Your task to perform on an android device: open chrome privacy settings Image 0: 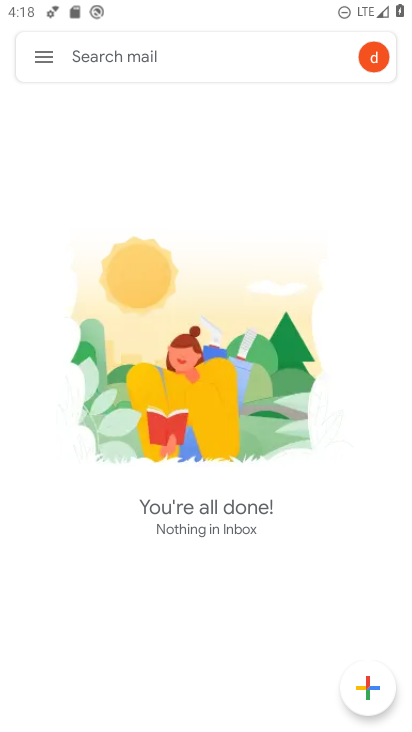
Step 0: press home button
Your task to perform on an android device: open chrome privacy settings Image 1: 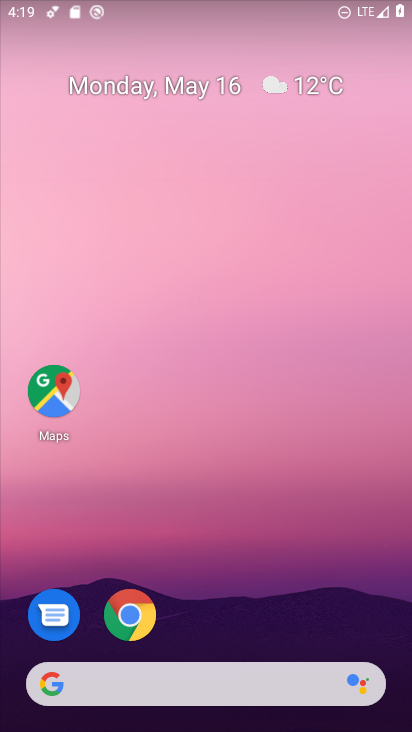
Step 1: click (132, 612)
Your task to perform on an android device: open chrome privacy settings Image 2: 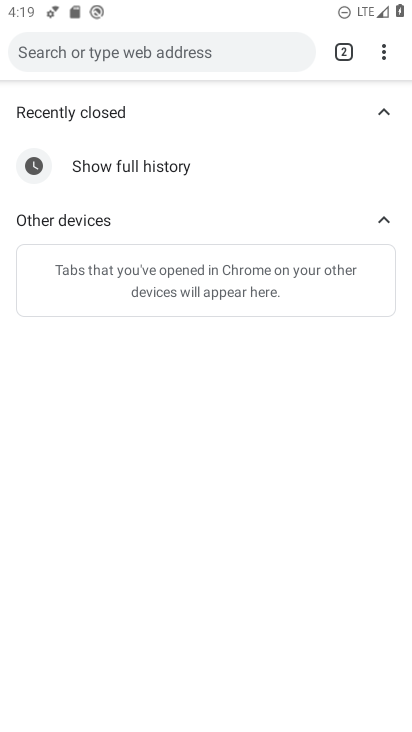
Step 2: click (385, 53)
Your task to perform on an android device: open chrome privacy settings Image 3: 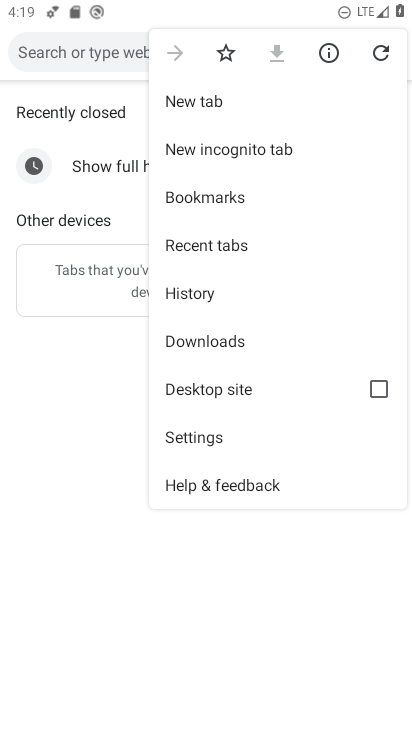
Step 3: click (202, 438)
Your task to perform on an android device: open chrome privacy settings Image 4: 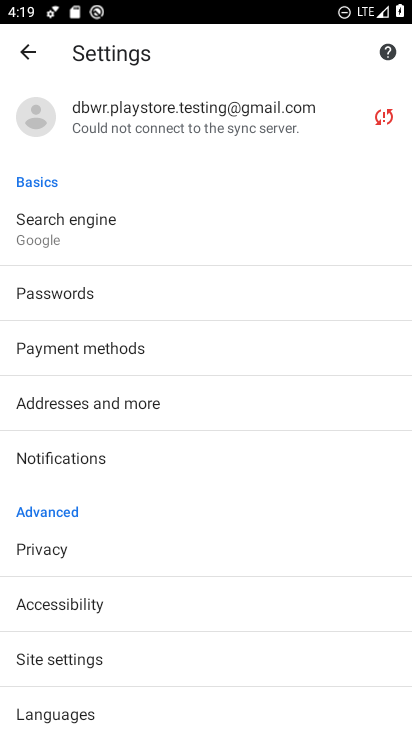
Step 4: click (60, 552)
Your task to perform on an android device: open chrome privacy settings Image 5: 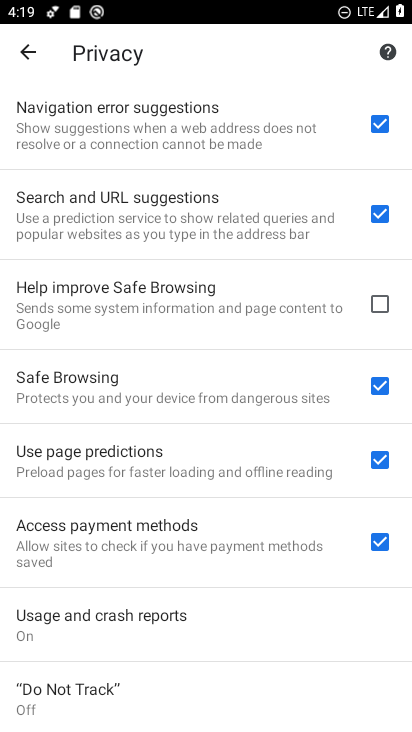
Step 5: task complete